Your task to perform on an android device: delete location history Image 0: 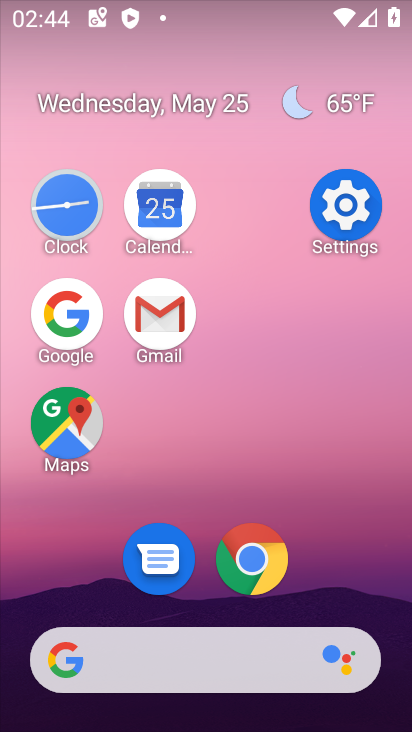
Step 0: click (342, 211)
Your task to perform on an android device: delete location history Image 1: 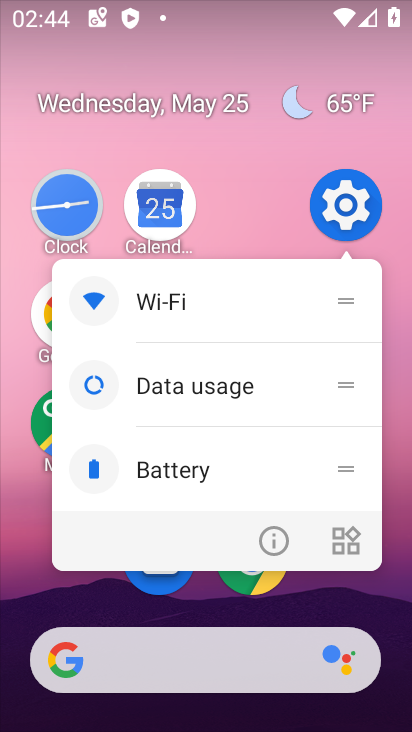
Step 1: click (353, 226)
Your task to perform on an android device: delete location history Image 2: 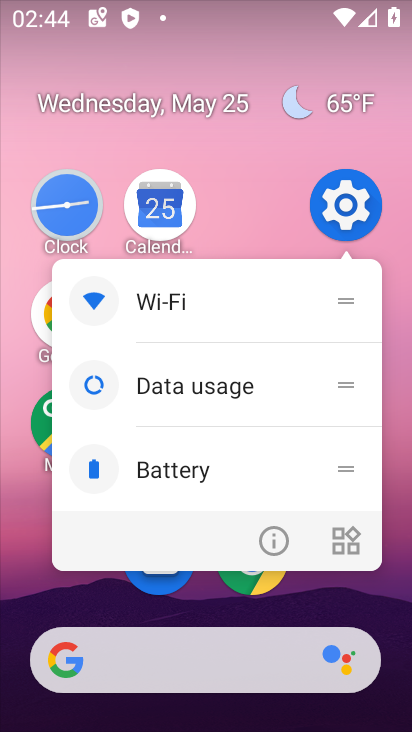
Step 2: click (346, 204)
Your task to perform on an android device: delete location history Image 3: 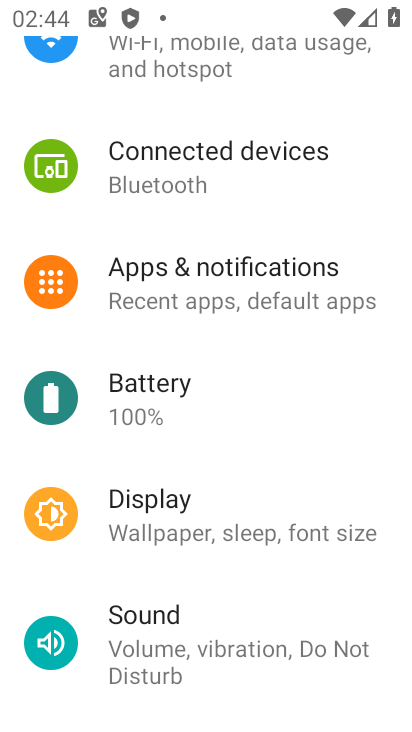
Step 3: drag from (243, 604) to (286, 258)
Your task to perform on an android device: delete location history Image 4: 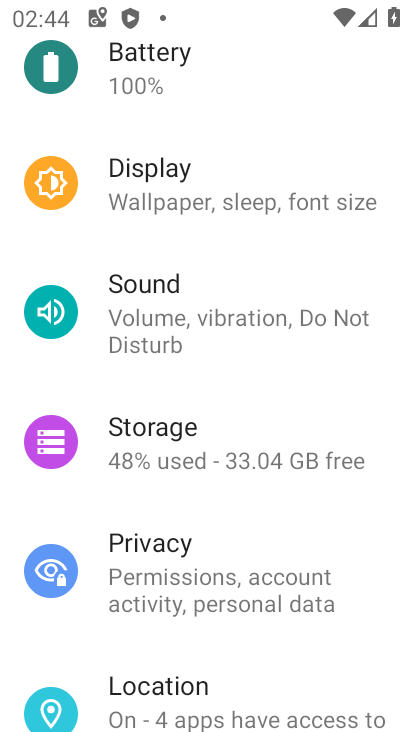
Step 4: click (185, 676)
Your task to perform on an android device: delete location history Image 5: 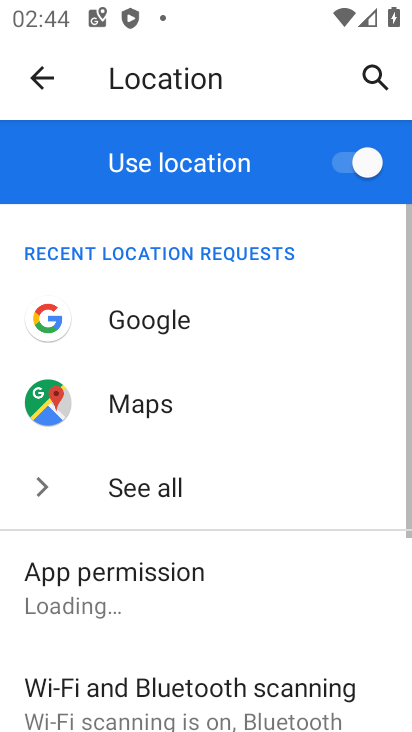
Step 5: drag from (280, 621) to (331, 336)
Your task to perform on an android device: delete location history Image 6: 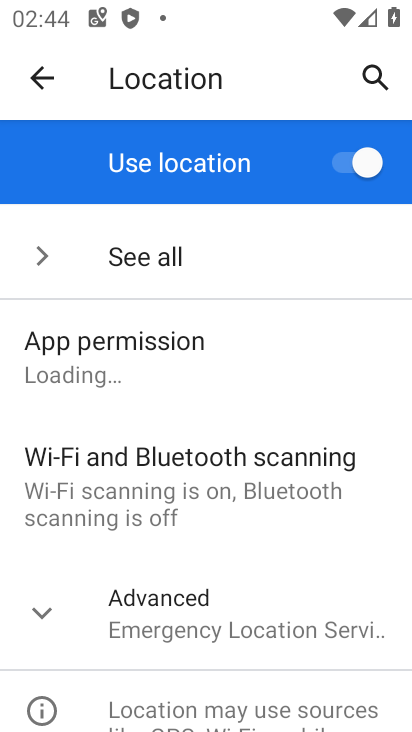
Step 6: click (197, 699)
Your task to perform on an android device: delete location history Image 7: 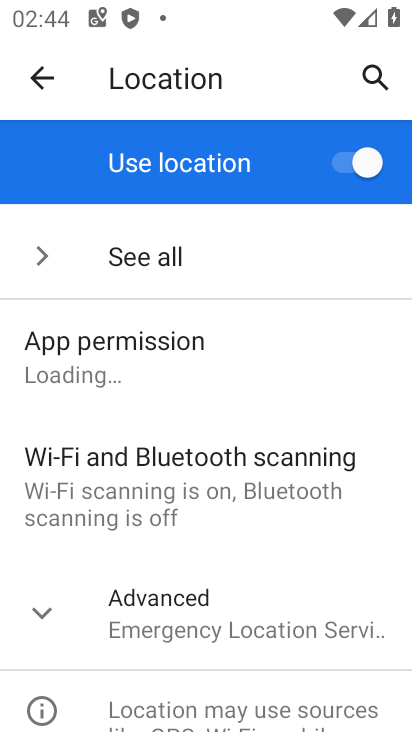
Step 7: click (200, 621)
Your task to perform on an android device: delete location history Image 8: 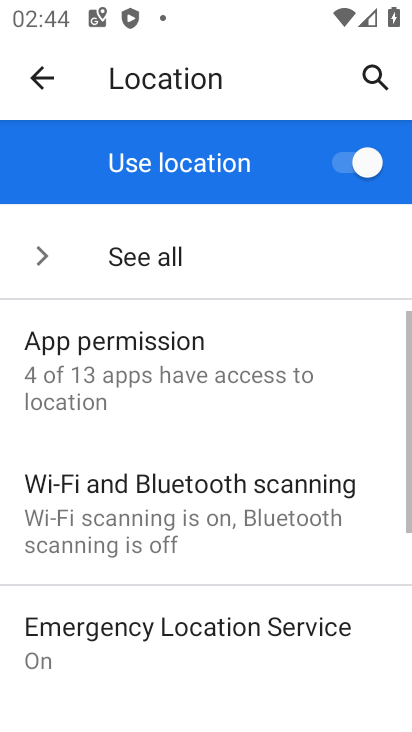
Step 8: drag from (201, 613) to (238, 350)
Your task to perform on an android device: delete location history Image 9: 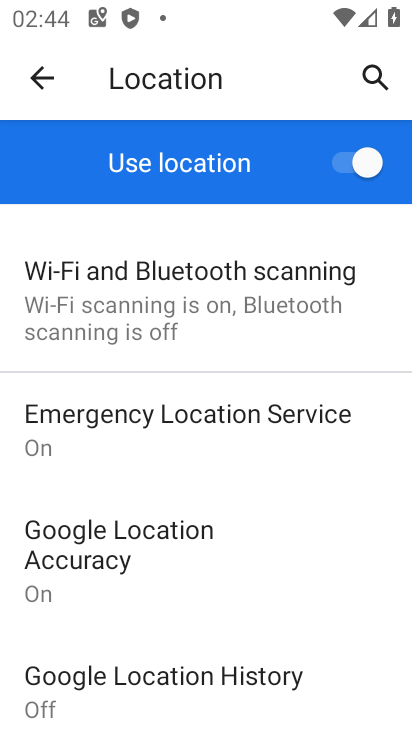
Step 9: click (180, 692)
Your task to perform on an android device: delete location history Image 10: 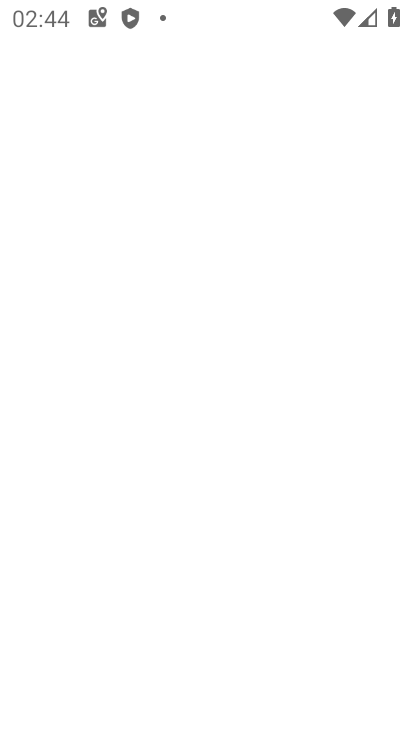
Step 10: drag from (102, 679) to (164, 335)
Your task to perform on an android device: delete location history Image 11: 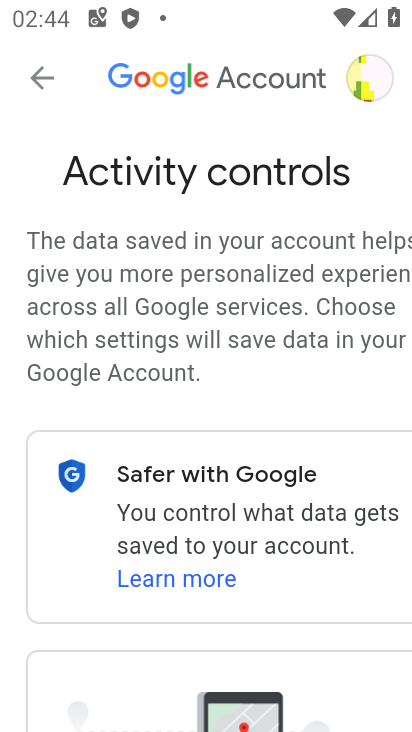
Step 11: drag from (282, 639) to (295, 259)
Your task to perform on an android device: delete location history Image 12: 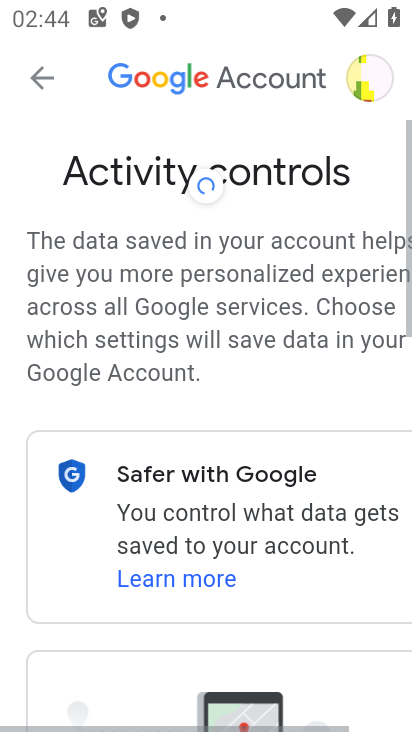
Step 12: drag from (294, 560) to (324, 256)
Your task to perform on an android device: delete location history Image 13: 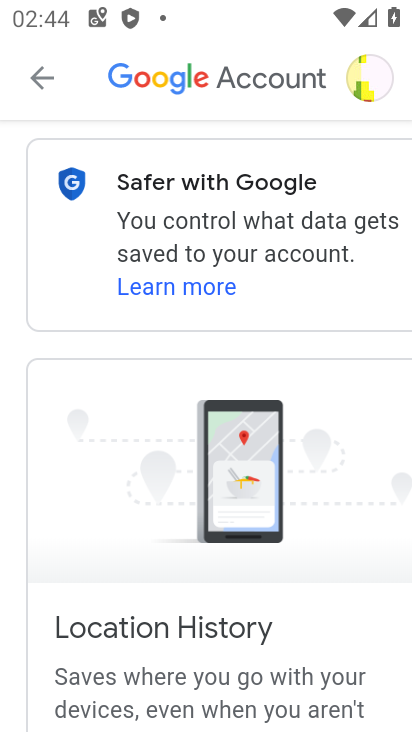
Step 13: drag from (327, 609) to (355, 253)
Your task to perform on an android device: delete location history Image 14: 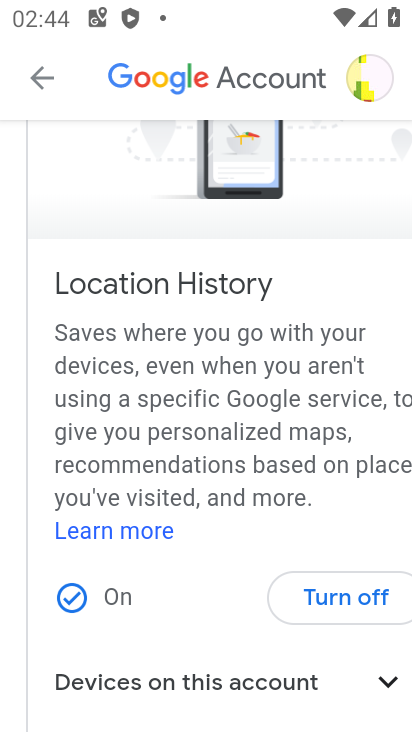
Step 14: drag from (245, 652) to (260, 272)
Your task to perform on an android device: delete location history Image 15: 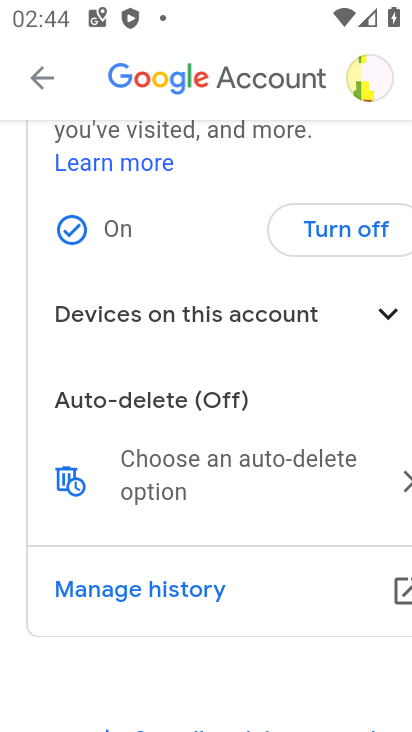
Step 15: click (119, 500)
Your task to perform on an android device: delete location history Image 16: 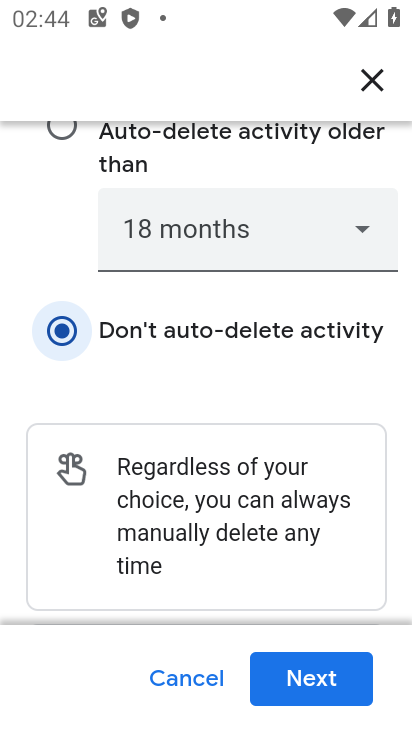
Step 16: click (300, 677)
Your task to perform on an android device: delete location history Image 17: 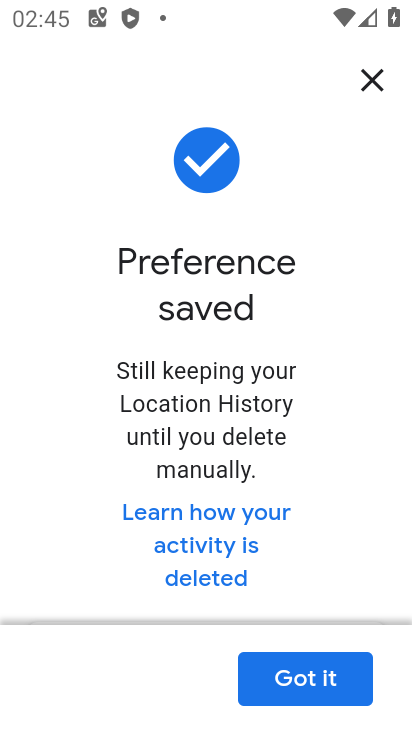
Step 17: click (317, 673)
Your task to perform on an android device: delete location history Image 18: 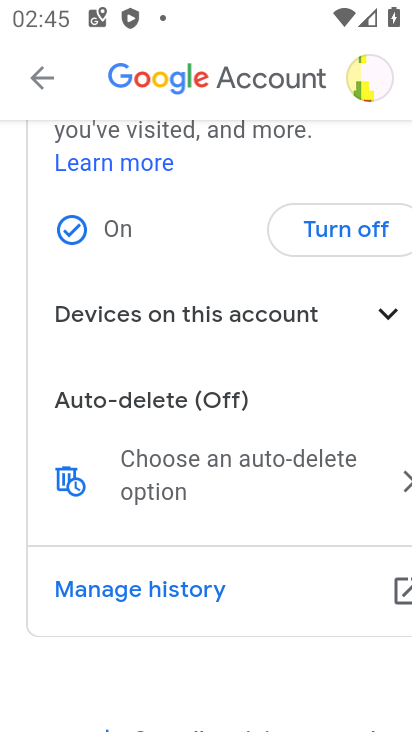
Step 18: task complete